Your task to perform on an android device: open sync settings in chrome Image 0: 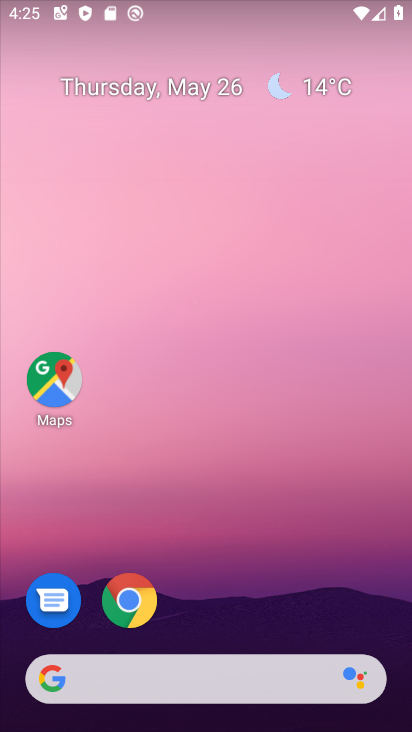
Step 0: click (137, 600)
Your task to perform on an android device: open sync settings in chrome Image 1: 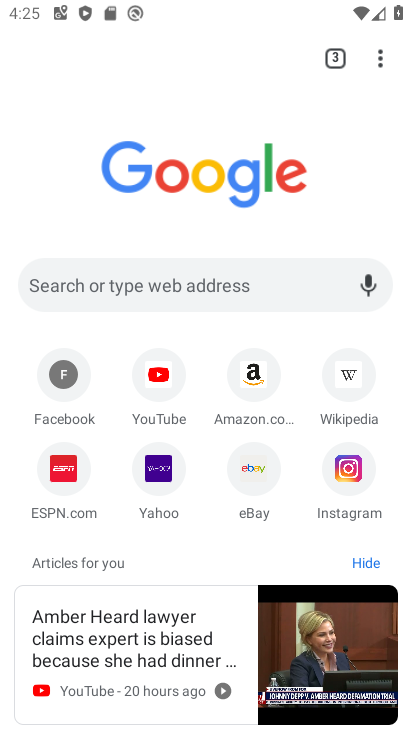
Step 1: click (383, 73)
Your task to perform on an android device: open sync settings in chrome Image 2: 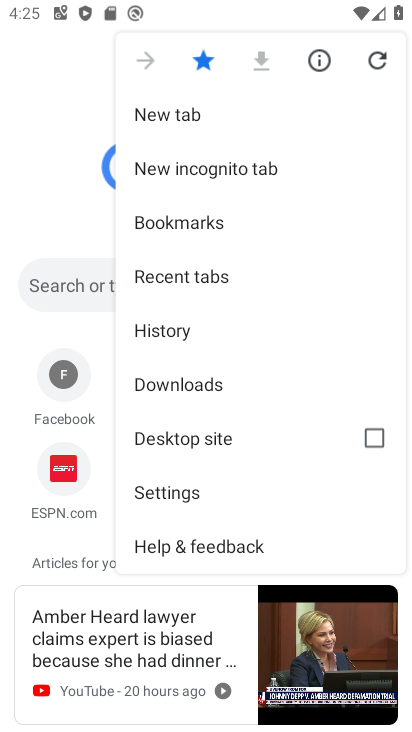
Step 2: click (147, 504)
Your task to perform on an android device: open sync settings in chrome Image 3: 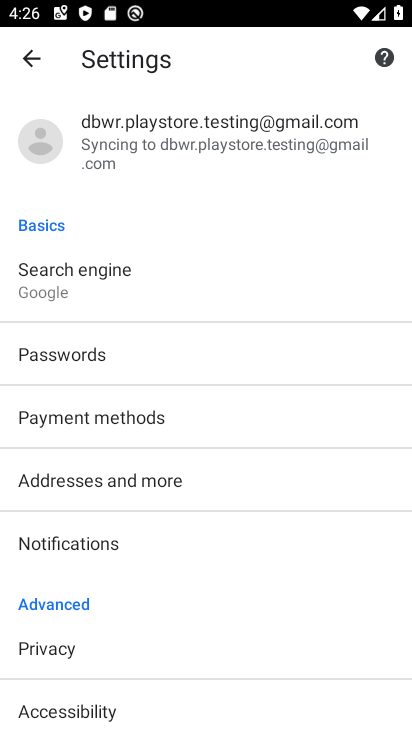
Step 3: click (130, 160)
Your task to perform on an android device: open sync settings in chrome Image 4: 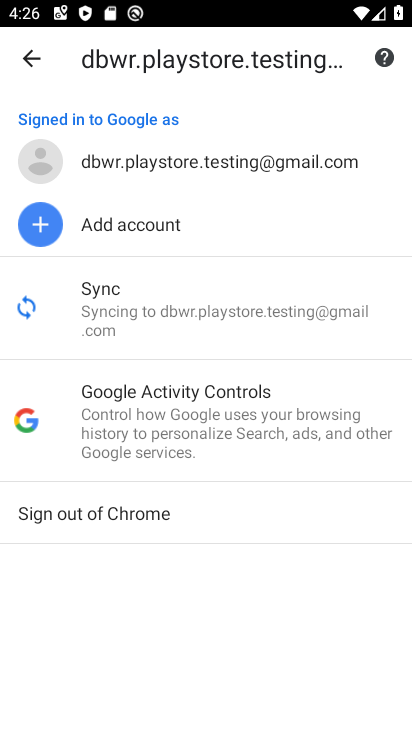
Step 4: click (113, 326)
Your task to perform on an android device: open sync settings in chrome Image 5: 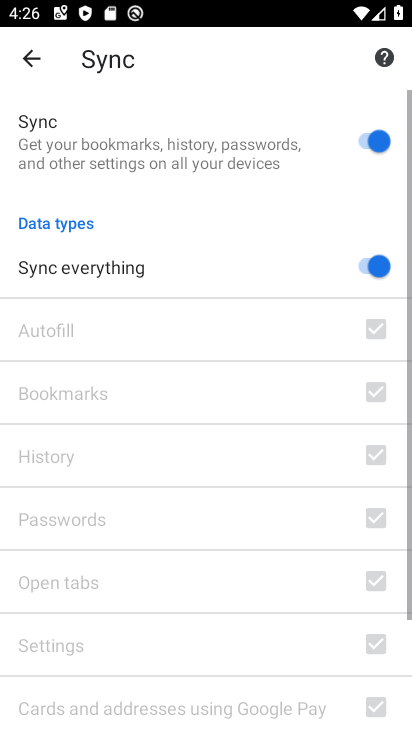
Step 5: task complete